Your task to perform on an android device: Go to Google Image 0: 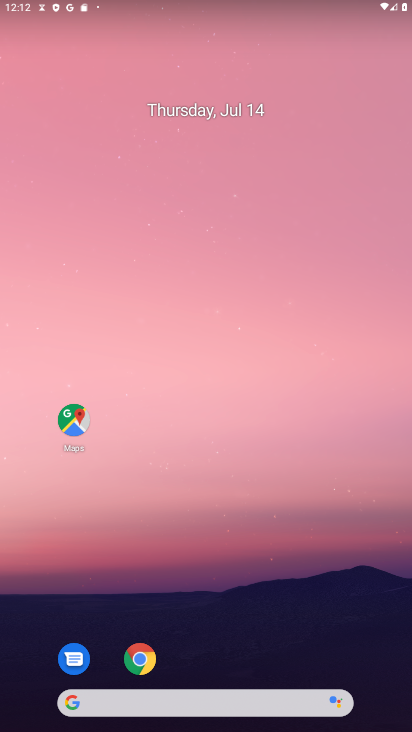
Step 0: click (98, 695)
Your task to perform on an android device: Go to Google Image 1: 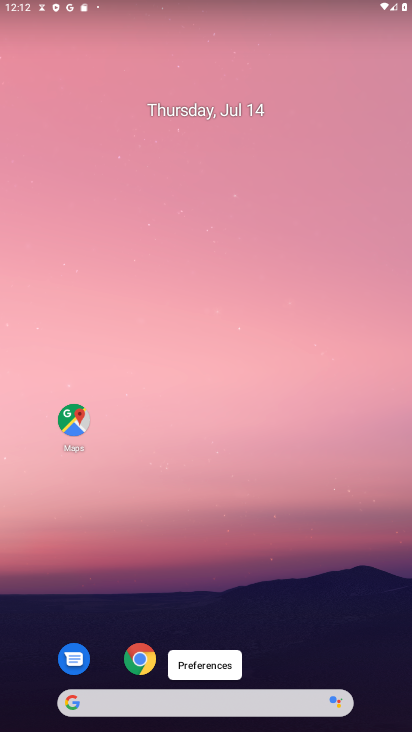
Step 1: click (118, 691)
Your task to perform on an android device: Go to Google Image 2: 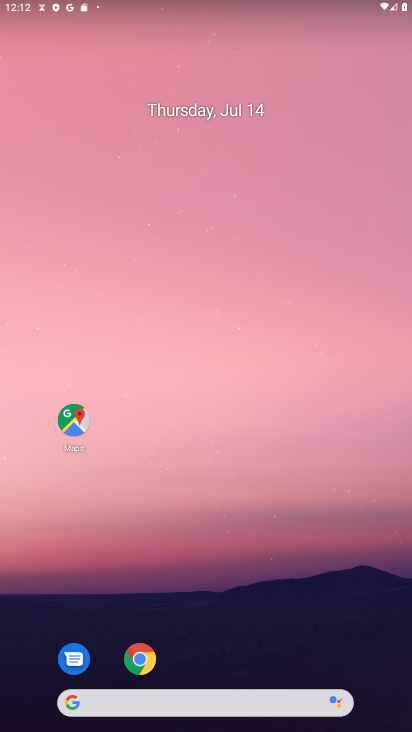
Step 2: click (117, 704)
Your task to perform on an android device: Go to Google Image 3: 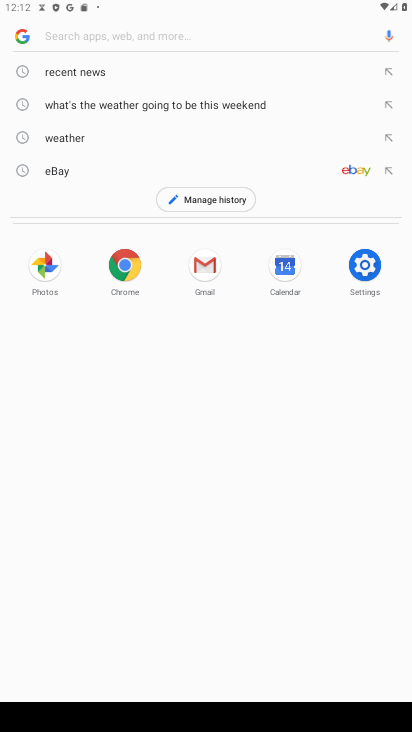
Step 3: task complete